Your task to perform on an android device: What's on my calendar today? Image 0: 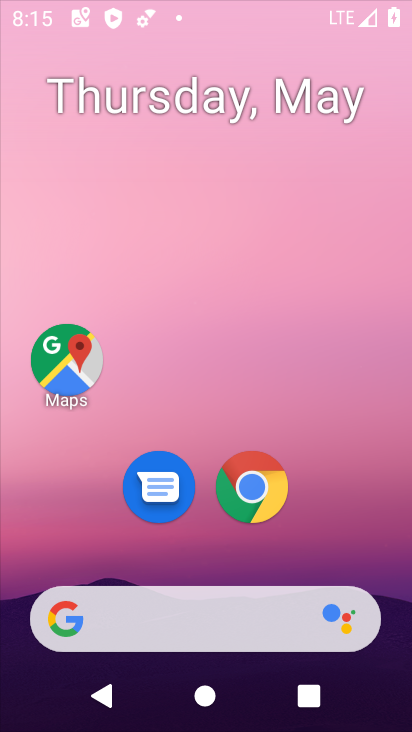
Step 0: click (307, 114)
Your task to perform on an android device: What's on my calendar today? Image 1: 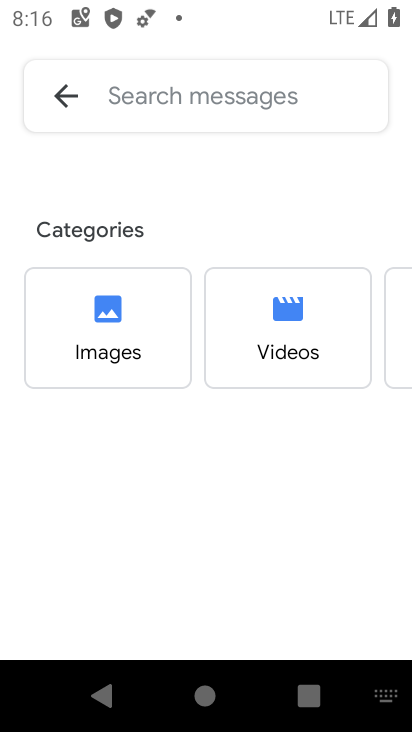
Step 1: drag from (223, 495) to (252, 168)
Your task to perform on an android device: What's on my calendar today? Image 2: 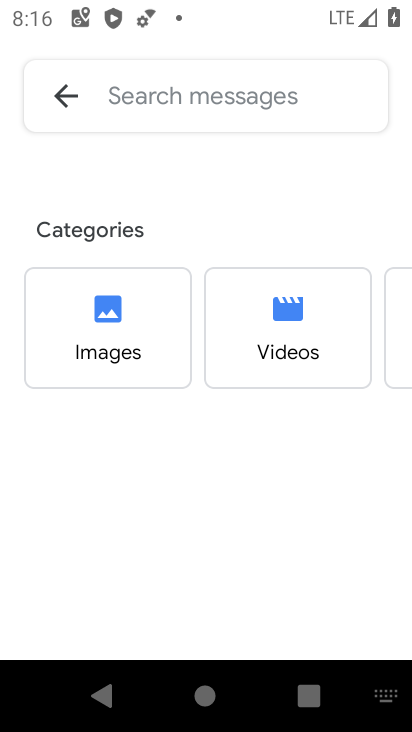
Step 2: press home button
Your task to perform on an android device: What's on my calendar today? Image 3: 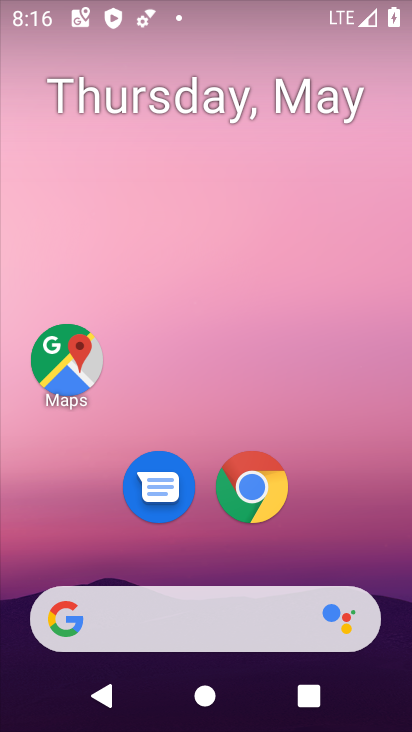
Step 3: drag from (198, 536) to (247, 173)
Your task to perform on an android device: What's on my calendar today? Image 4: 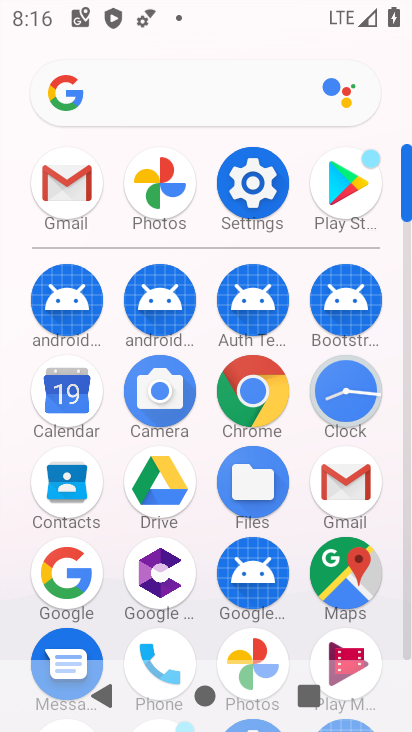
Step 4: click (67, 402)
Your task to perform on an android device: What's on my calendar today? Image 5: 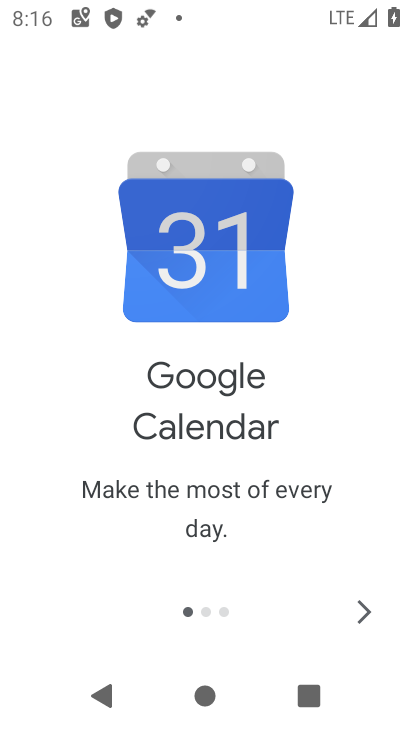
Step 5: click (366, 620)
Your task to perform on an android device: What's on my calendar today? Image 6: 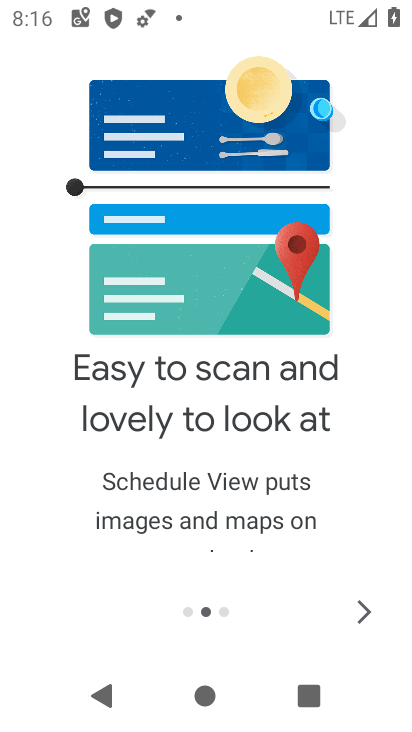
Step 6: click (362, 608)
Your task to perform on an android device: What's on my calendar today? Image 7: 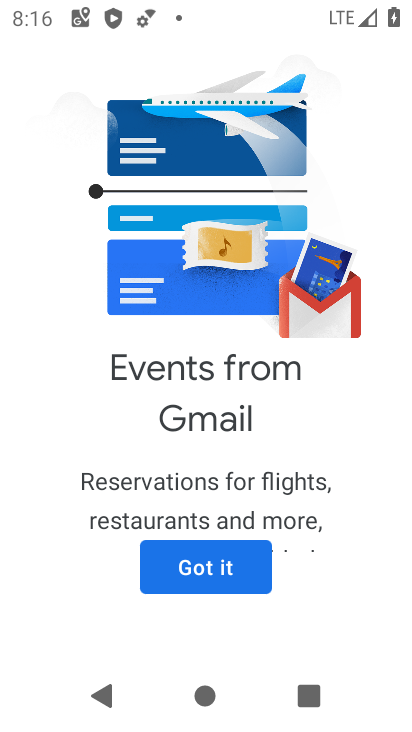
Step 7: click (362, 608)
Your task to perform on an android device: What's on my calendar today? Image 8: 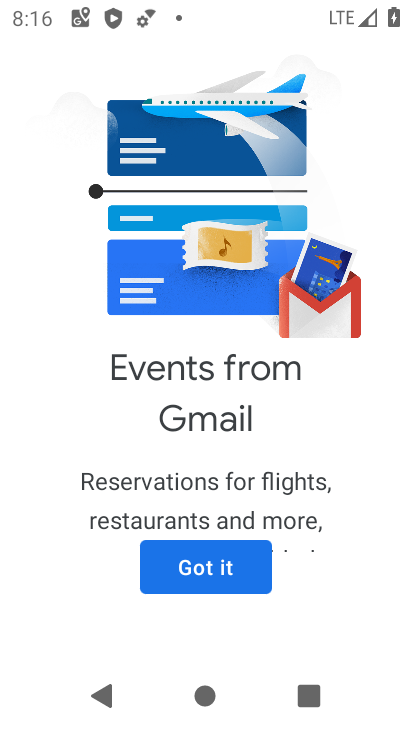
Step 8: click (243, 570)
Your task to perform on an android device: What's on my calendar today? Image 9: 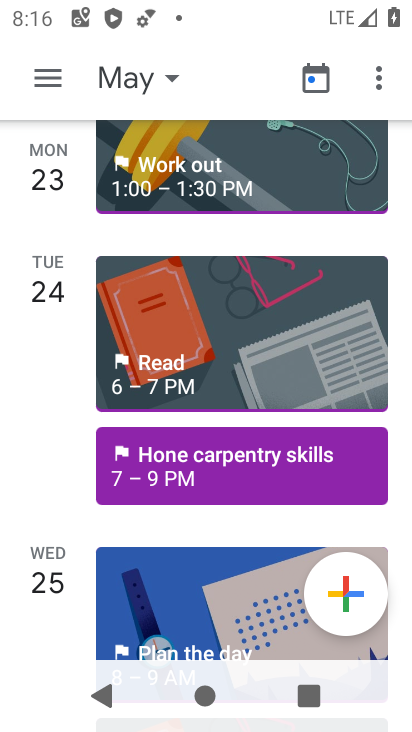
Step 9: click (148, 88)
Your task to perform on an android device: What's on my calendar today? Image 10: 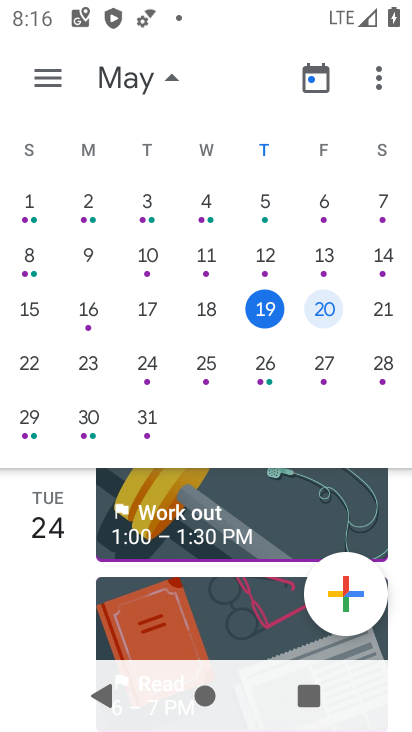
Step 10: click (265, 313)
Your task to perform on an android device: What's on my calendar today? Image 11: 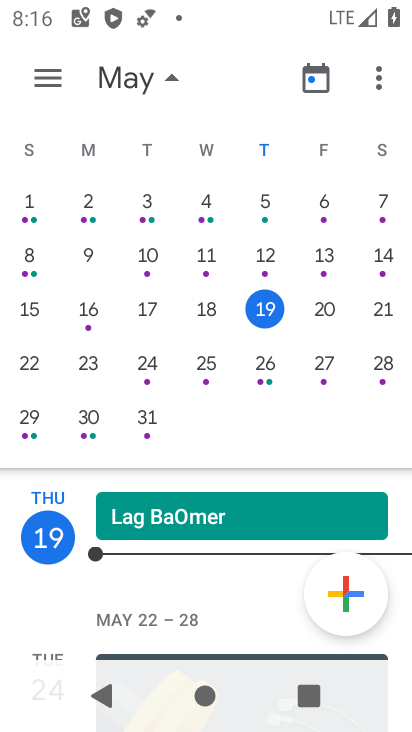
Step 11: task complete